Your task to perform on an android device: Go to privacy settings Image 0: 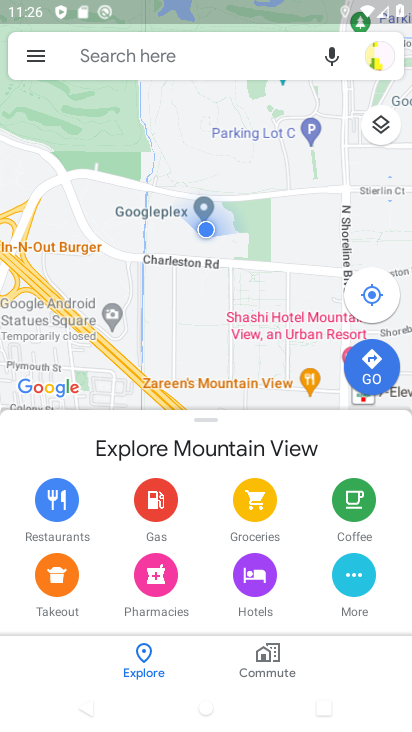
Step 0: press back button
Your task to perform on an android device: Go to privacy settings Image 1: 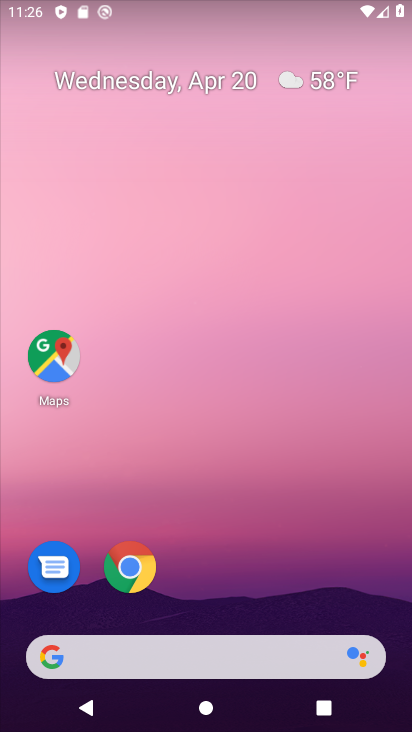
Step 1: drag from (345, 566) to (314, 76)
Your task to perform on an android device: Go to privacy settings Image 2: 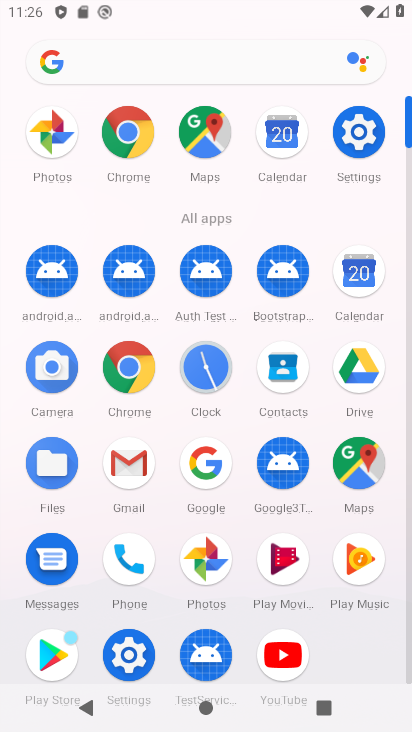
Step 2: click (123, 137)
Your task to perform on an android device: Go to privacy settings Image 3: 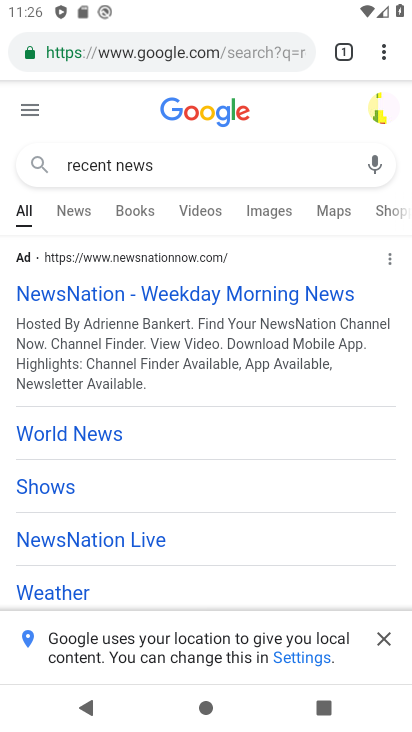
Step 3: click (393, 57)
Your task to perform on an android device: Go to privacy settings Image 4: 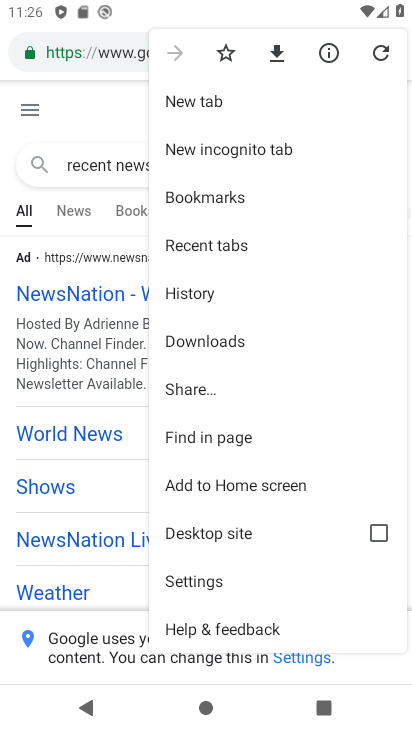
Step 4: click (276, 571)
Your task to perform on an android device: Go to privacy settings Image 5: 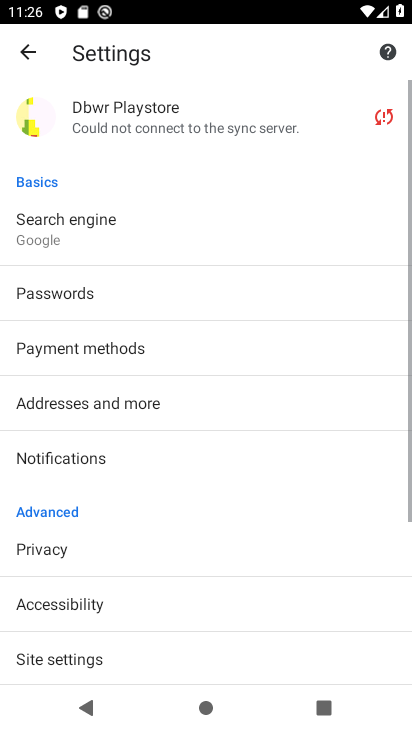
Step 5: drag from (223, 573) to (202, 412)
Your task to perform on an android device: Go to privacy settings Image 6: 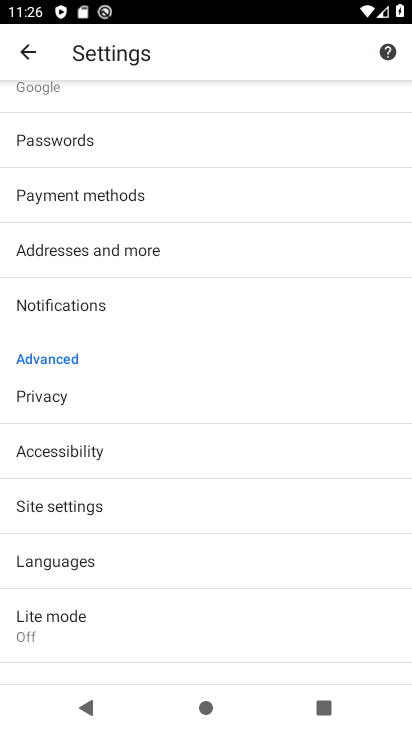
Step 6: click (187, 397)
Your task to perform on an android device: Go to privacy settings Image 7: 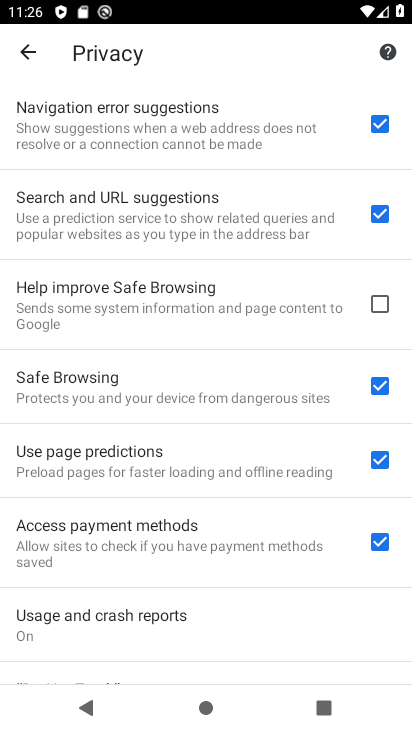
Step 7: task complete